Your task to perform on an android device: check data usage Image 0: 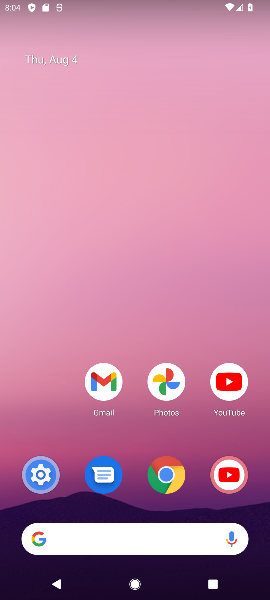
Step 0: drag from (132, 523) to (194, 130)
Your task to perform on an android device: check data usage Image 1: 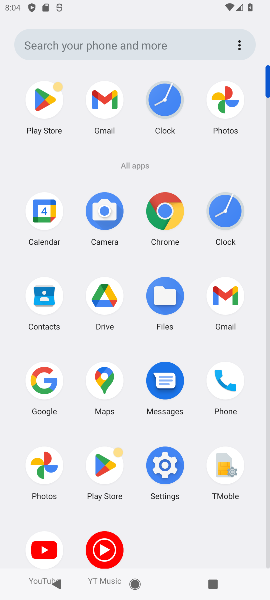
Step 1: click (161, 466)
Your task to perform on an android device: check data usage Image 2: 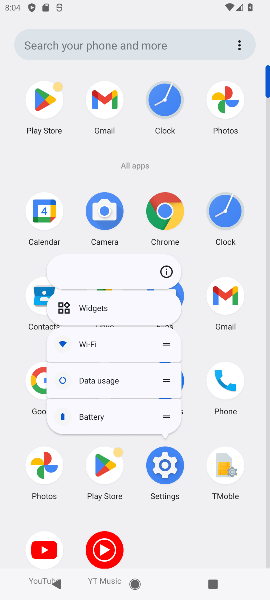
Step 2: click (170, 268)
Your task to perform on an android device: check data usage Image 3: 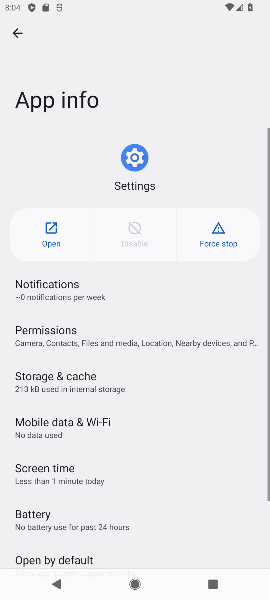
Step 3: click (51, 235)
Your task to perform on an android device: check data usage Image 4: 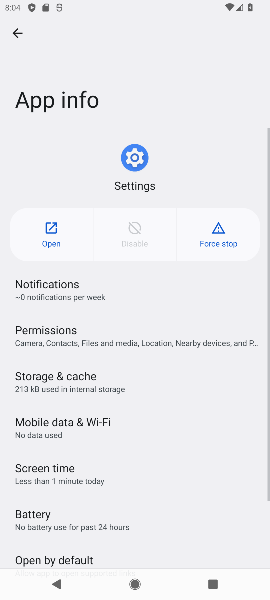
Step 4: click (51, 235)
Your task to perform on an android device: check data usage Image 5: 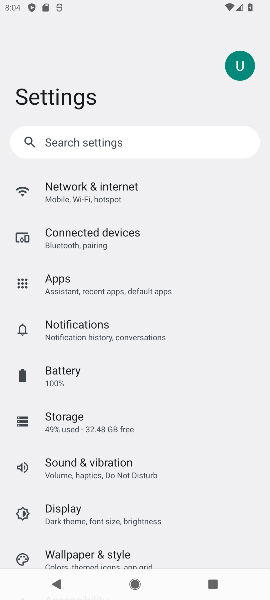
Step 5: click (114, 184)
Your task to perform on an android device: check data usage Image 6: 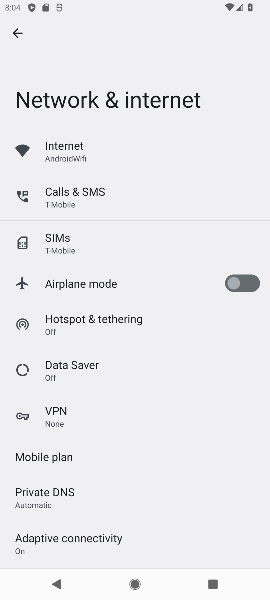
Step 6: drag from (117, 456) to (216, 141)
Your task to perform on an android device: check data usage Image 7: 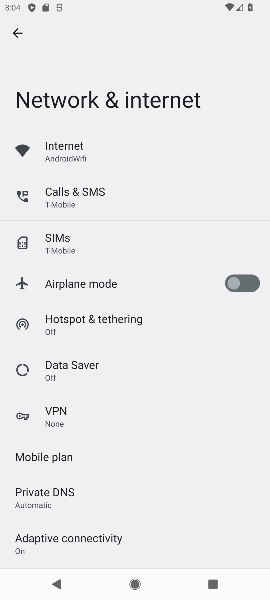
Step 7: drag from (184, 220) to (183, 568)
Your task to perform on an android device: check data usage Image 8: 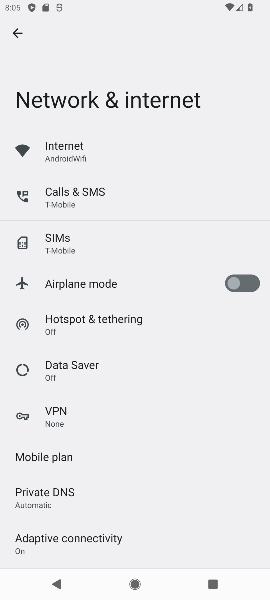
Step 8: drag from (97, 482) to (164, 266)
Your task to perform on an android device: check data usage Image 9: 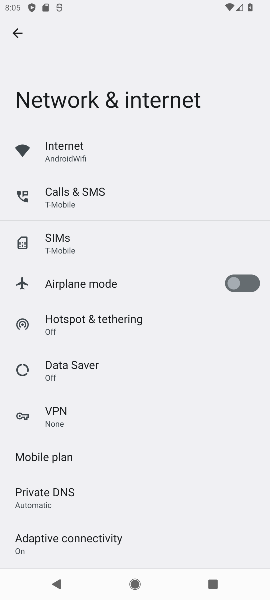
Step 9: click (55, 244)
Your task to perform on an android device: check data usage Image 10: 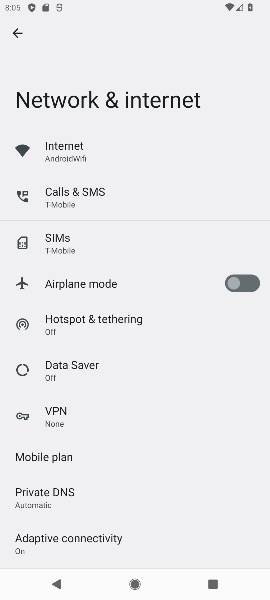
Step 10: task complete